Your task to perform on an android device: Open maps Image 0: 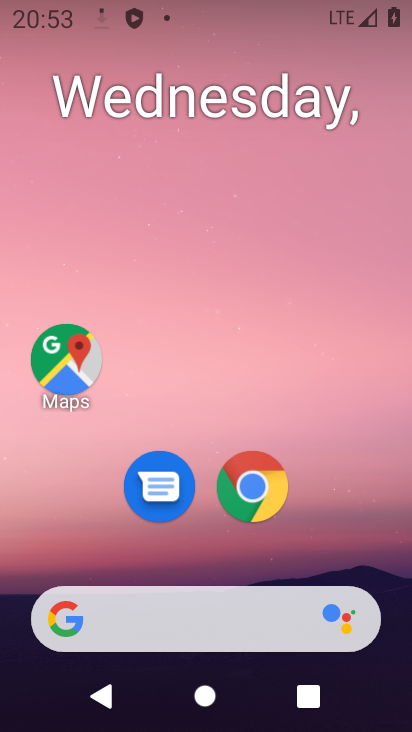
Step 0: click (58, 368)
Your task to perform on an android device: Open maps Image 1: 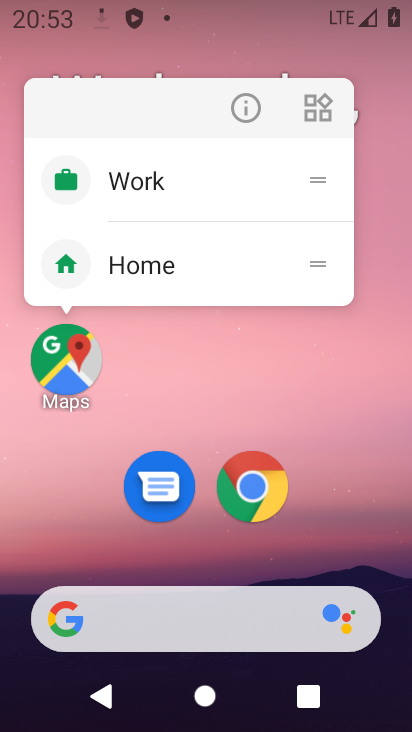
Step 1: click (60, 371)
Your task to perform on an android device: Open maps Image 2: 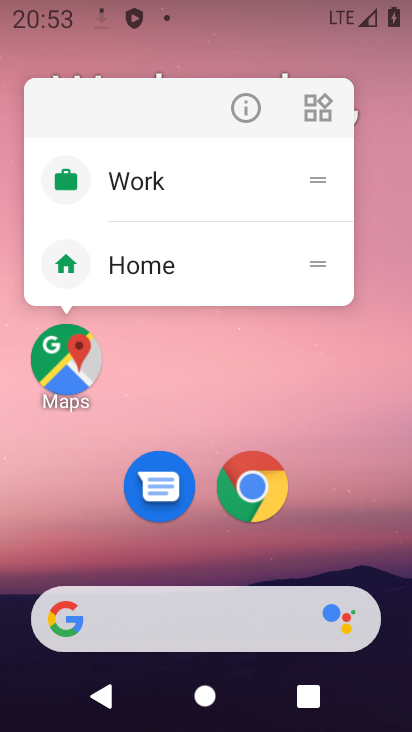
Step 2: click (45, 370)
Your task to perform on an android device: Open maps Image 3: 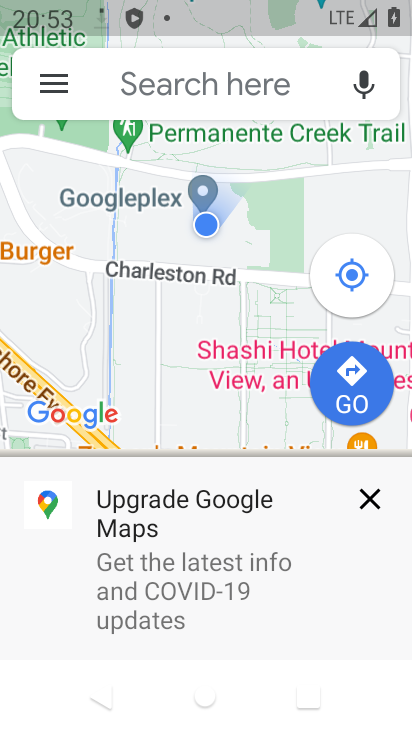
Step 3: task complete